Your task to perform on an android device: Show me recent news Image 0: 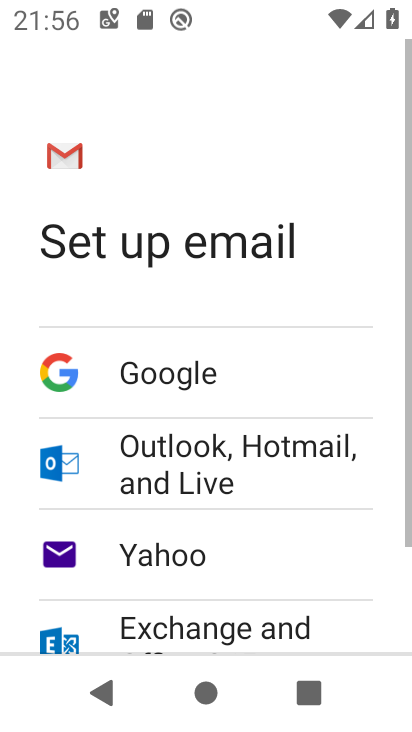
Step 0: press home button
Your task to perform on an android device: Show me recent news Image 1: 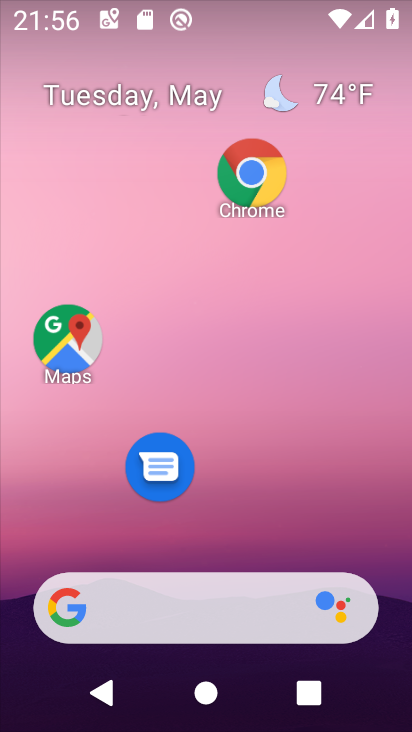
Step 1: drag from (374, 534) to (409, 94)
Your task to perform on an android device: Show me recent news Image 2: 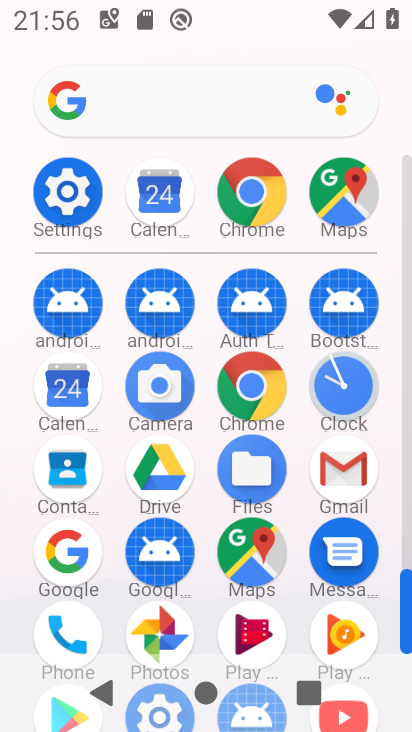
Step 2: click (251, 387)
Your task to perform on an android device: Show me recent news Image 3: 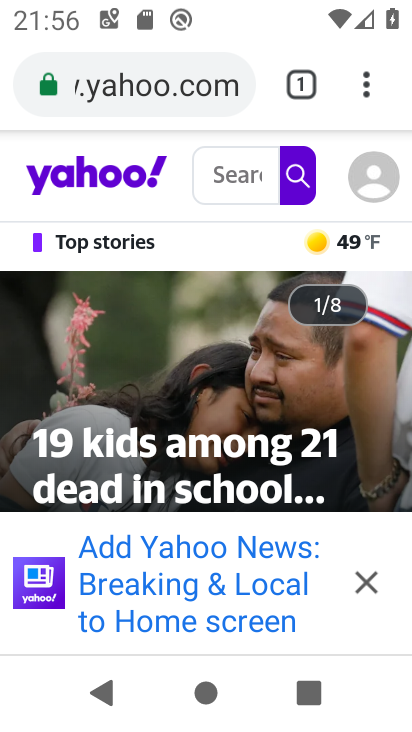
Step 3: click (224, 94)
Your task to perform on an android device: Show me recent news Image 4: 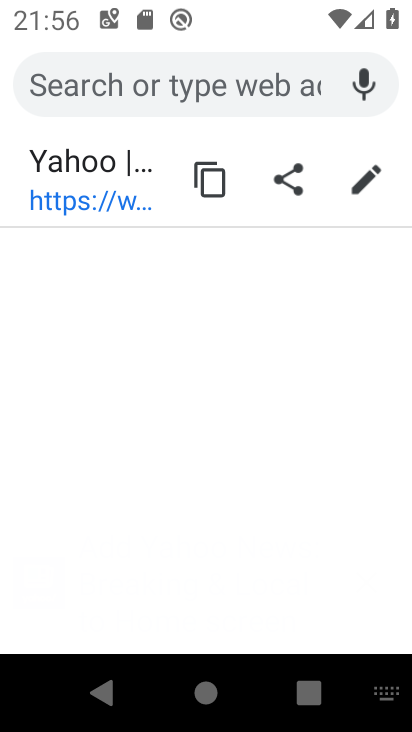
Step 4: type "show me recent news"
Your task to perform on an android device: Show me recent news Image 5: 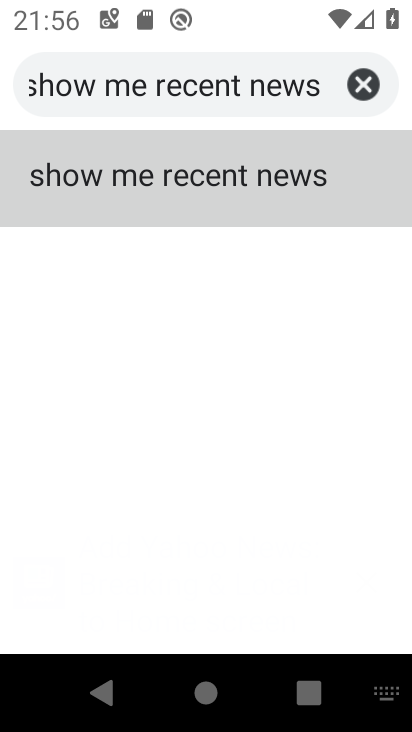
Step 5: click (310, 208)
Your task to perform on an android device: Show me recent news Image 6: 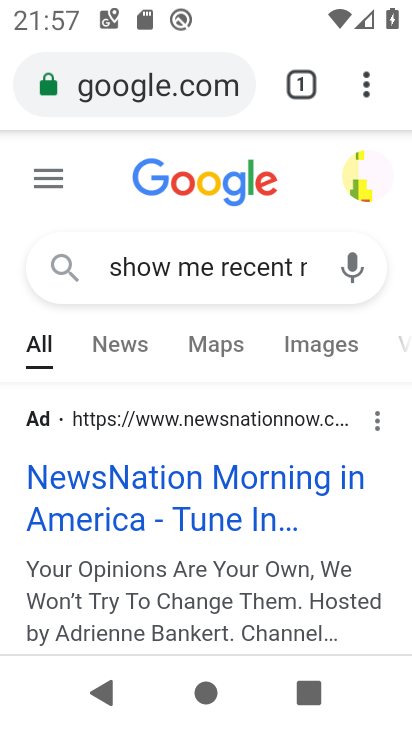
Step 6: task complete